Your task to perform on an android device: turn off notifications settings in the gmail app Image 0: 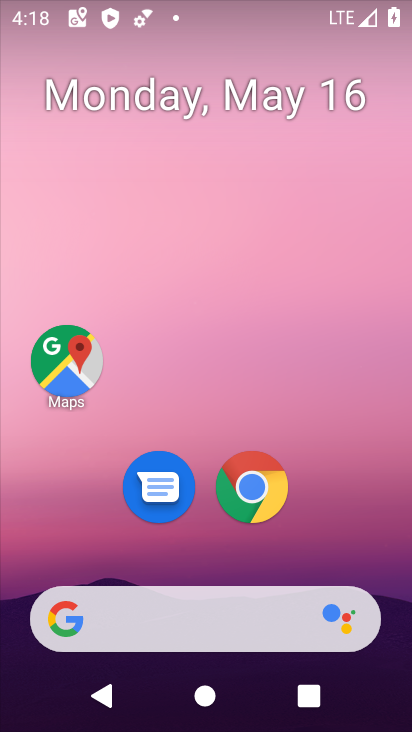
Step 0: drag from (406, 620) to (286, 125)
Your task to perform on an android device: turn off notifications settings in the gmail app Image 1: 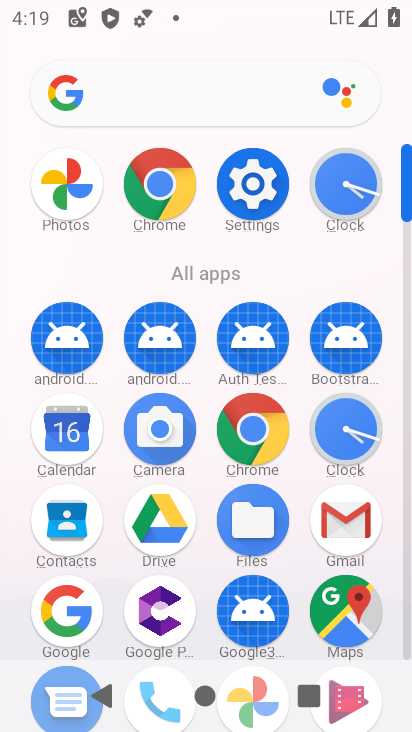
Step 1: click (406, 643)
Your task to perform on an android device: turn off notifications settings in the gmail app Image 2: 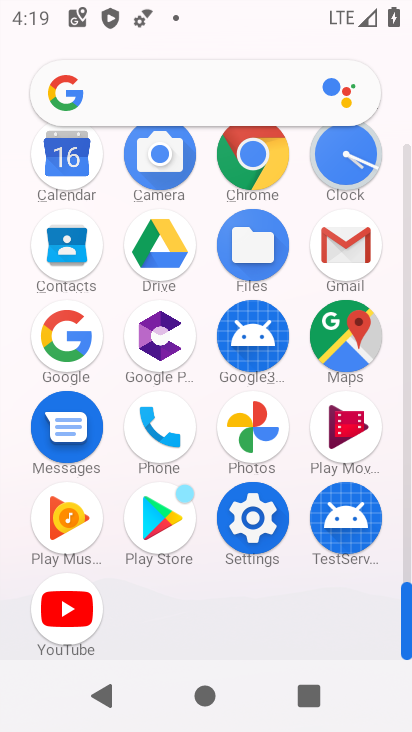
Step 2: click (342, 242)
Your task to perform on an android device: turn off notifications settings in the gmail app Image 3: 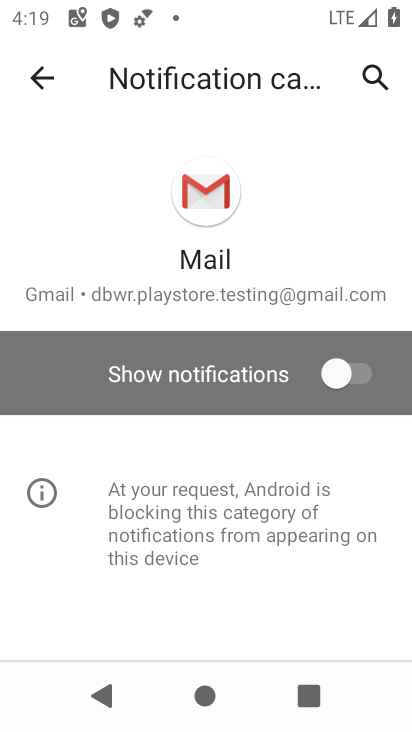
Step 3: task complete